Your task to perform on an android device: Search for Mexican restaurants on Maps Image 0: 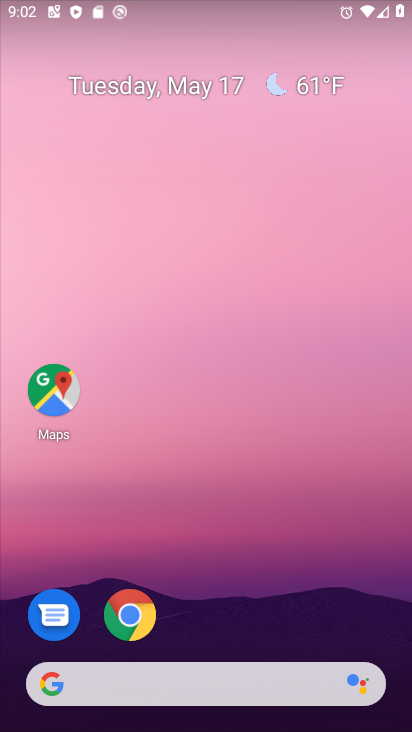
Step 0: click (56, 391)
Your task to perform on an android device: Search for Mexican restaurants on Maps Image 1: 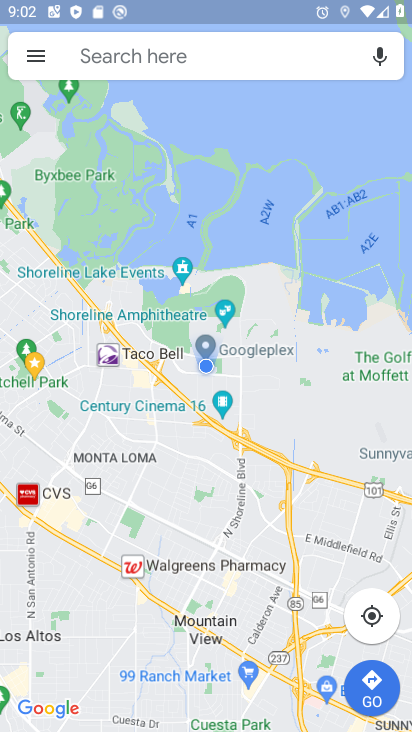
Step 1: click (256, 60)
Your task to perform on an android device: Search for Mexican restaurants on Maps Image 2: 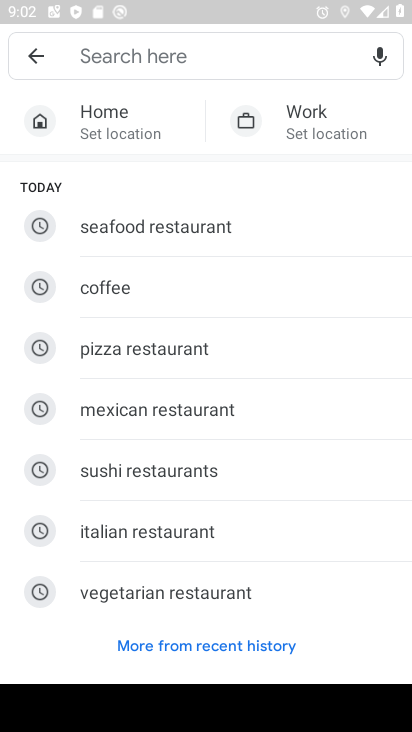
Step 2: click (228, 413)
Your task to perform on an android device: Search for Mexican restaurants on Maps Image 3: 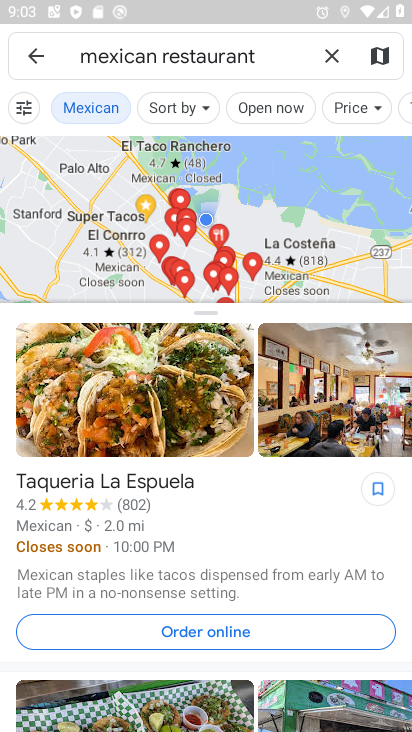
Step 3: task complete